Your task to perform on an android device: turn on notifications settings in the gmail app Image 0: 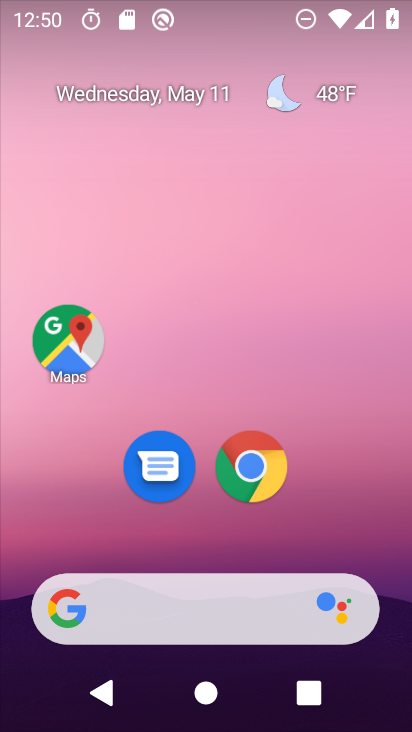
Step 0: drag from (200, 540) to (219, 150)
Your task to perform on an android device: turn on notifications settings in the gmail app Image 1: 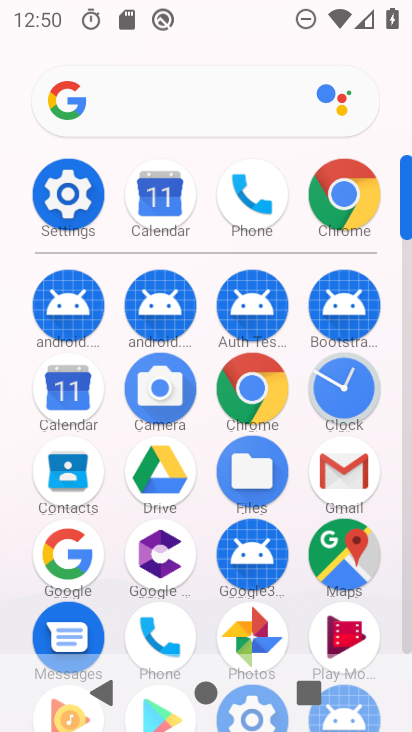
Step 1: click (342, 460)
Your task to perform on an android device: turn on notifications settings in the gmail app Image 2: 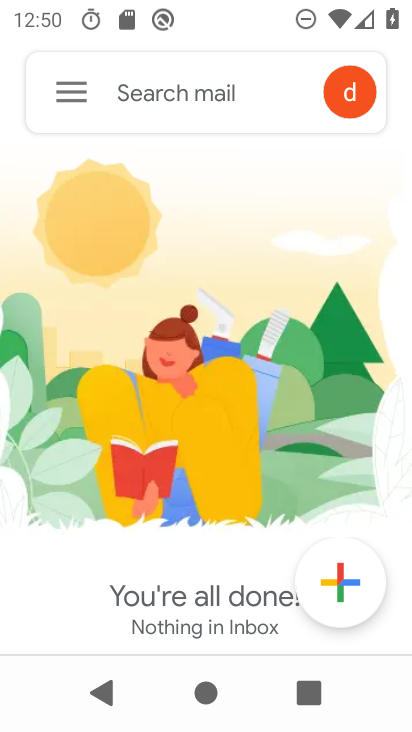
Step 2: click (72, 87)
Your task to perform on an android device: turn on notifications settings in the gmail app Image 3: 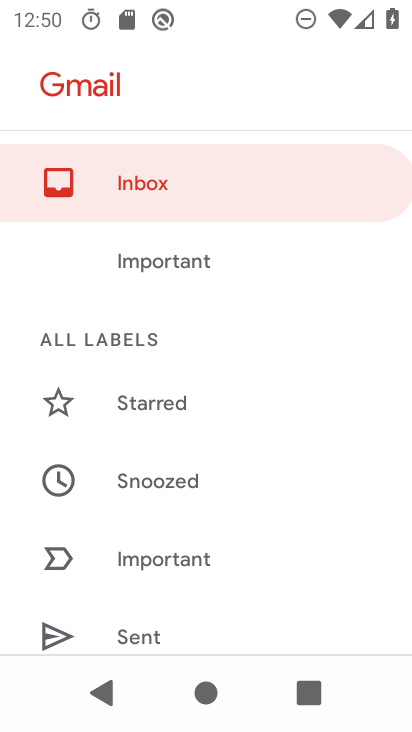
Step 3: drag from (177, 591) to (191, 135)
Your task to perform on an android device: turn on notifications settings in the gmail app Image 4: 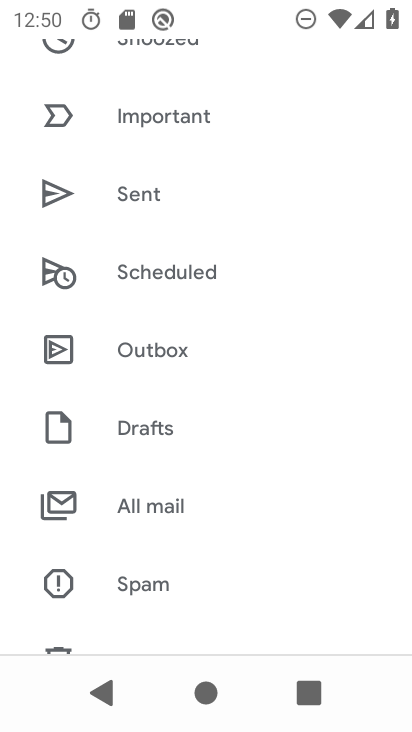
Step 4: drag from (171, 608) to (186, 132)
Your task to perform on an android device: turn on notifications settings in the gmail app Image 5: 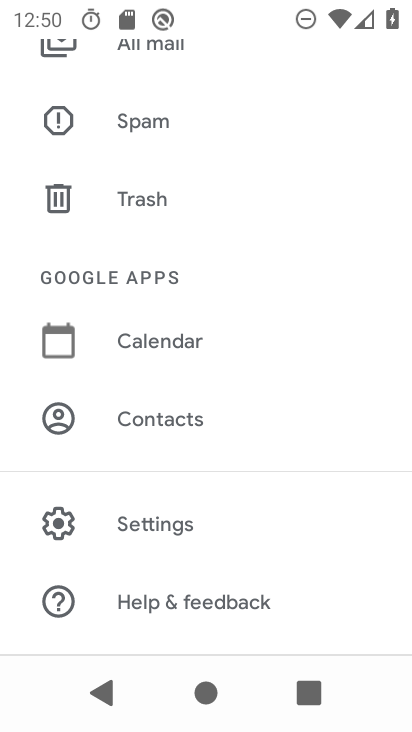
Step 5: click (167, 517)
Your task to perform on an android device: turn on notifications settings in the gmail app Image 6: 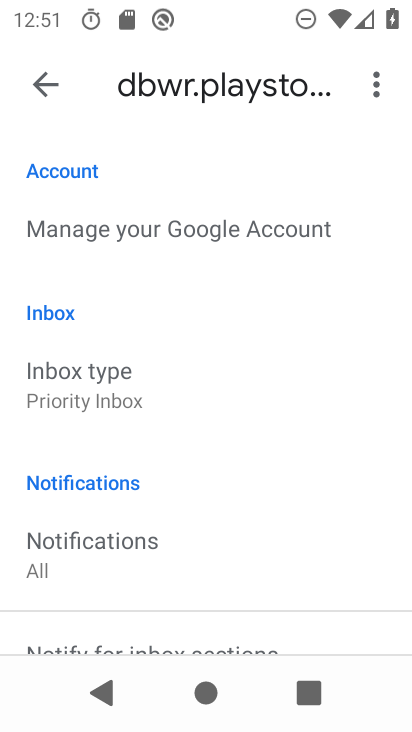
Step 6: click (61, 86)
Your task to perform on an android device: turn on notifications settings in the gmail app Image 7: 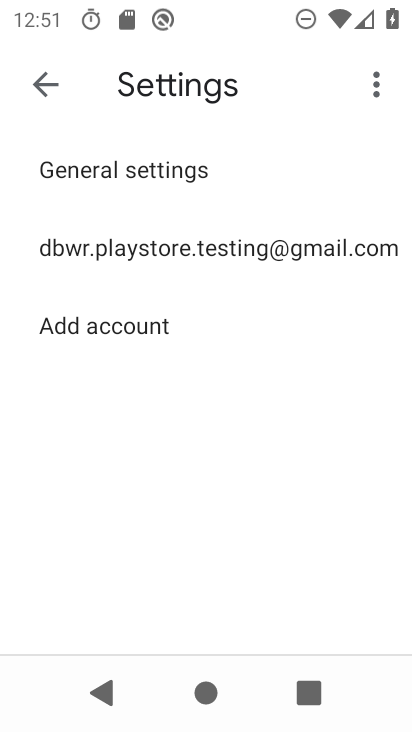
Step 7: click (218, 166)
Your task to perform on an android device: turn on notifications settings in the gmail app Image 8: 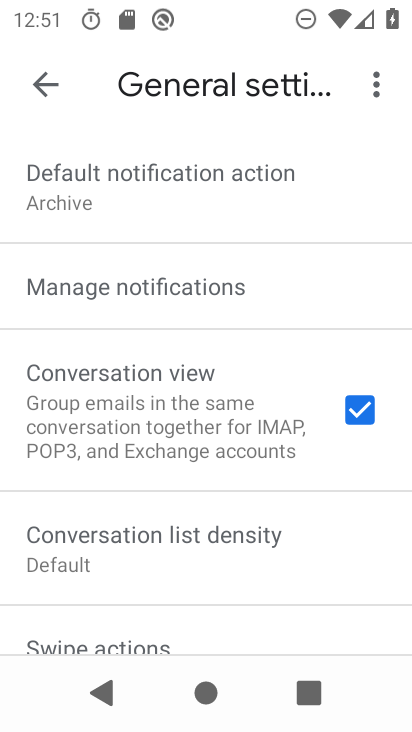
Step 8: click (253, 284)
Your task to perform on an android device: turn on notifications settings in the gmail app Image 9: 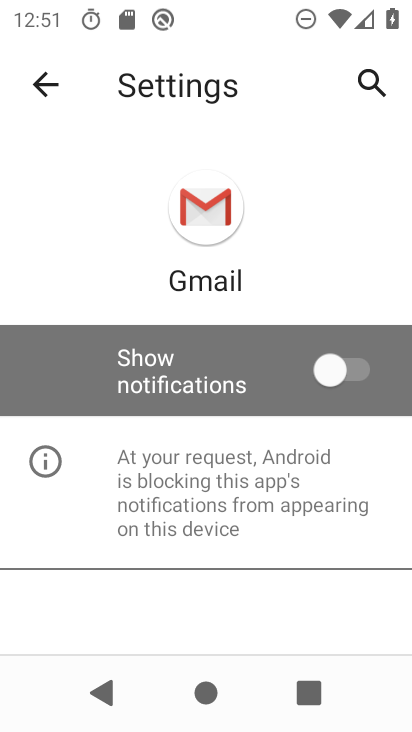
Step 9: click (347, 362)
Your task to perform on an android device: turn on notifications settings in the gmail app Image 10: 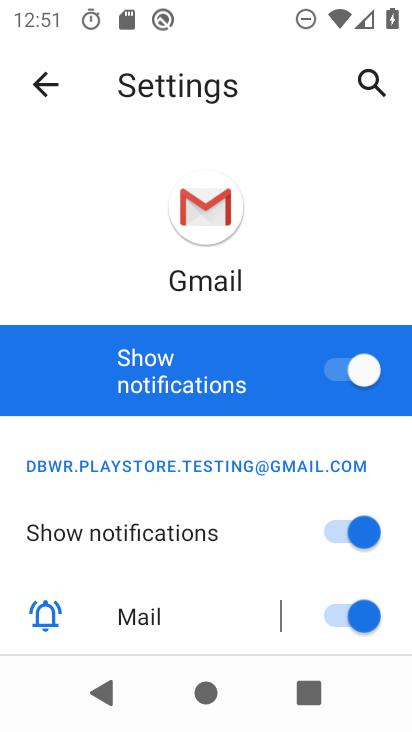
Step 10: task complete